Your task to perform on an android device: change timer sound Image 0: 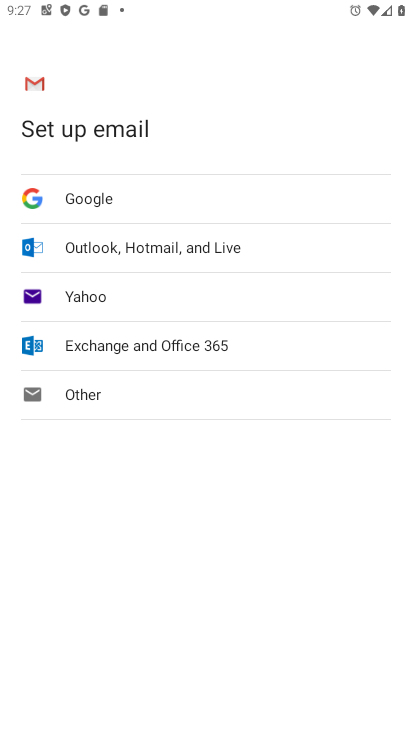
Step 0: press home button
Your task to perform on an android device: change timer sound Image 1: 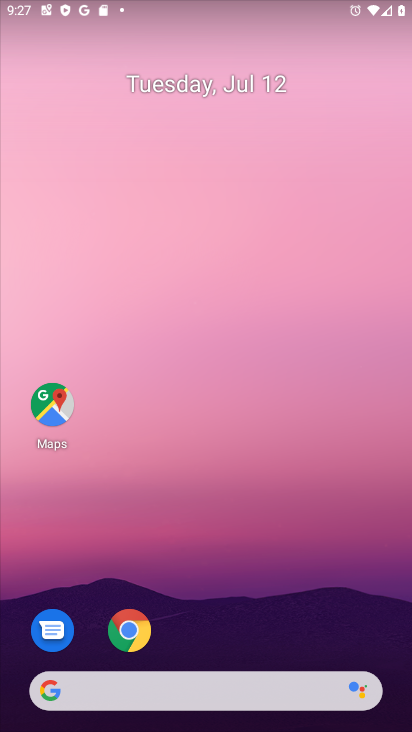
Step 1: drag from (226, 613) to (223, 119)
Your task to perform on an android device: change timer sound Image 2: 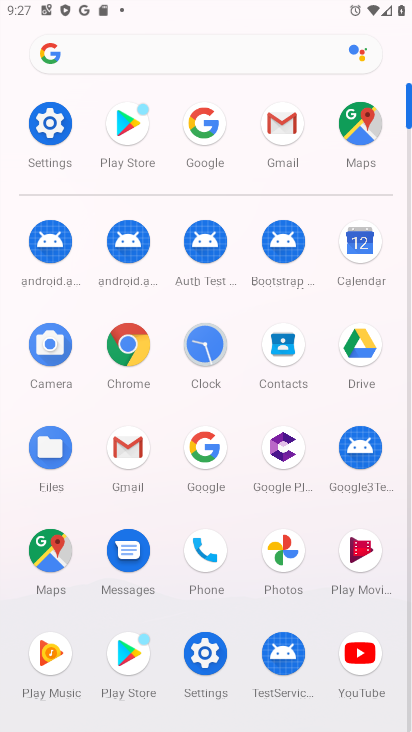
Step 2: click (181, 359)
Your task to perform on an android device: change timer sound Image 3: 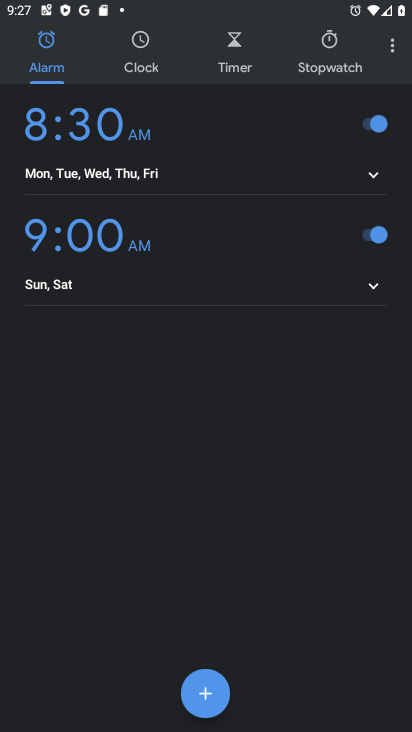
Step 3: click (390, 42)
Your task to perform on an android device: change timer sound Image 4: 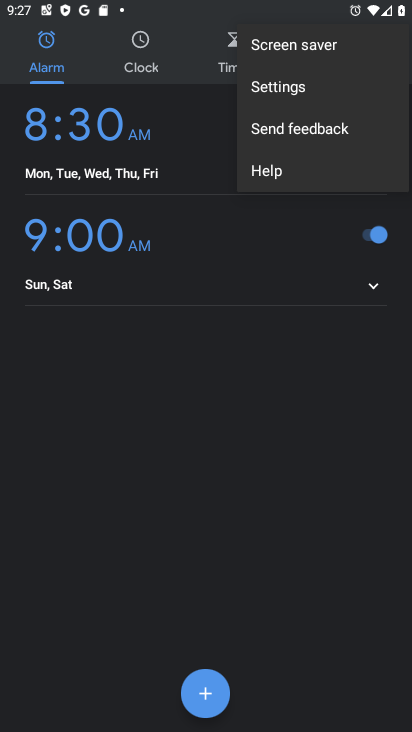
Step 4: click (290, 86)
Your task to perform on an android device: change timer sound Image 5: 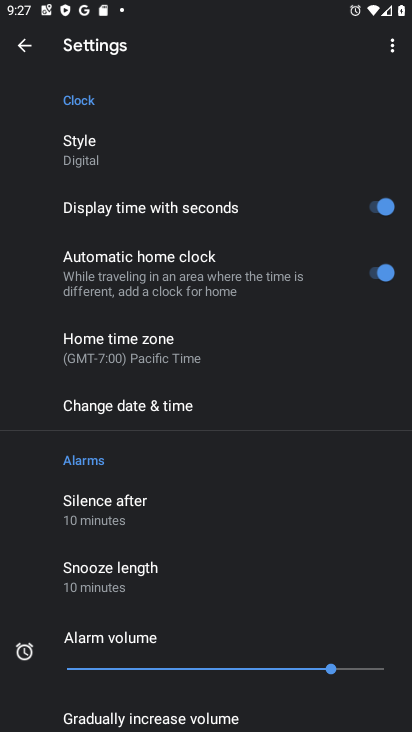
Step 5: drag from (182, 553) to (204, 219)
Your task to perform on an android device: change timer sound Image 6: 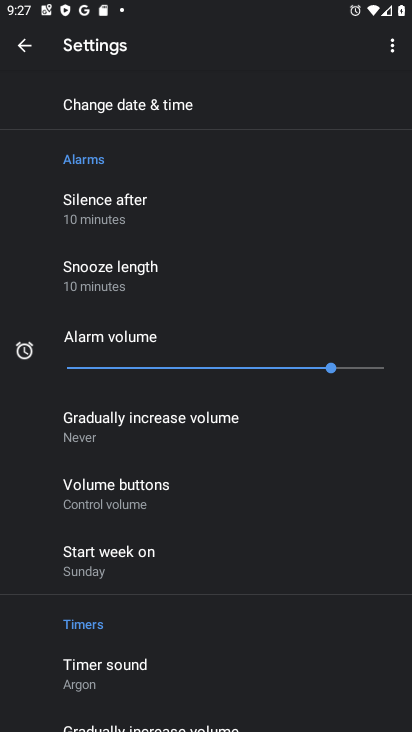
Step 6: click (95, 678)
Your task to perform on an android device: change timer sound Image 7: 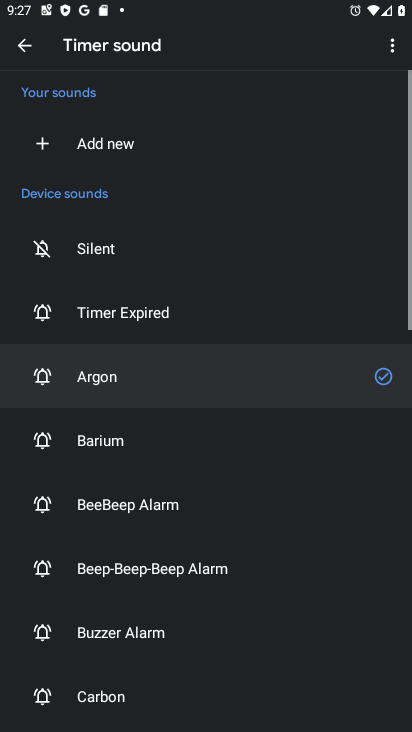
Step 7: click (112, 312)
Your task to perform on an android device: change timer sound Image 8: 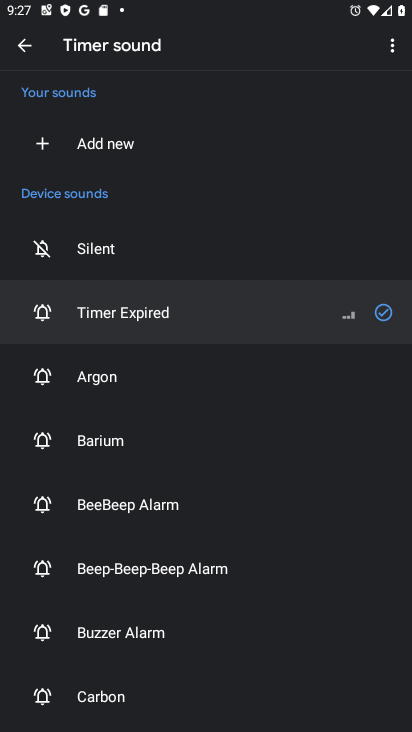
Step 8: task complete